Your task to perform on an android device: Search for seafood restaurants on Google Maps Image 0: 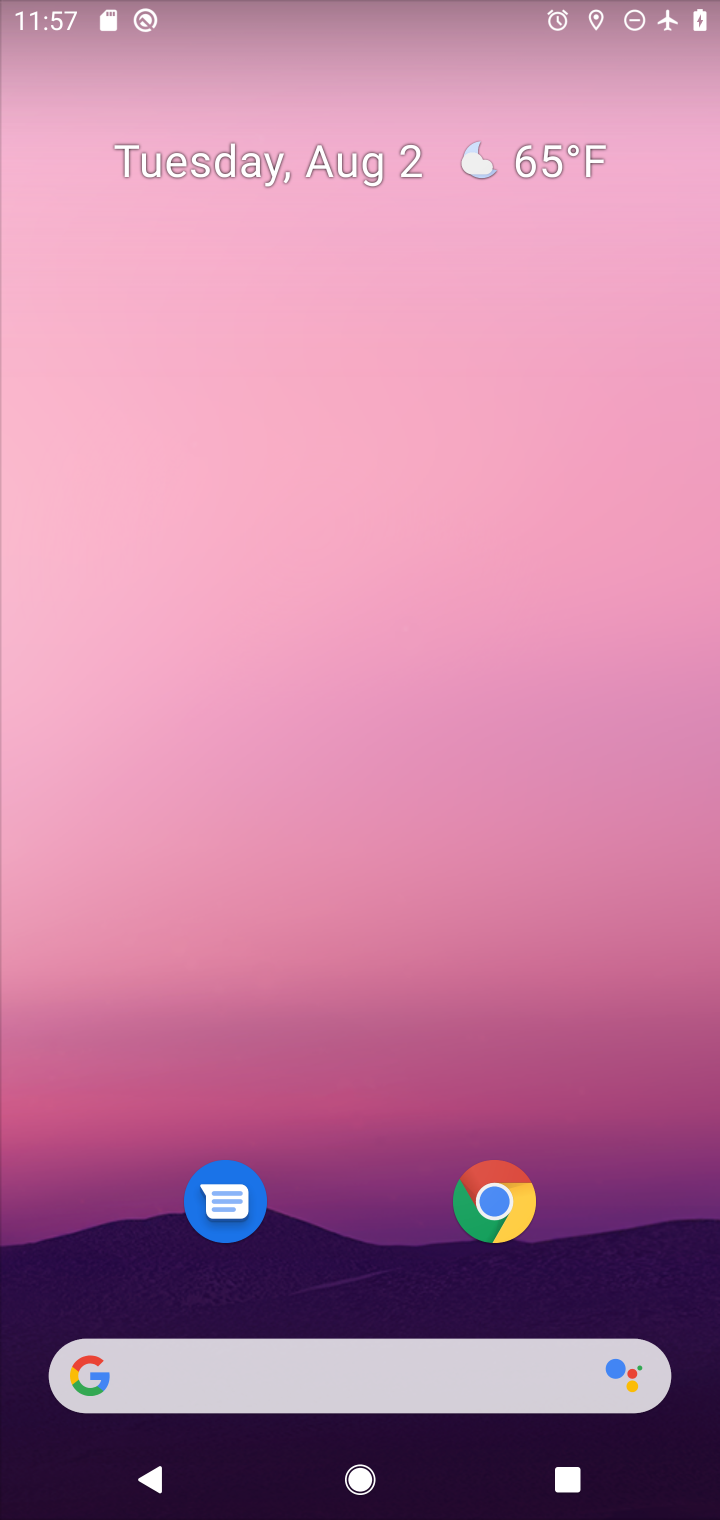
Step 0: press home button
Your task to perform on an android device: Search for seafood restaurants on Google Maps Image 1: 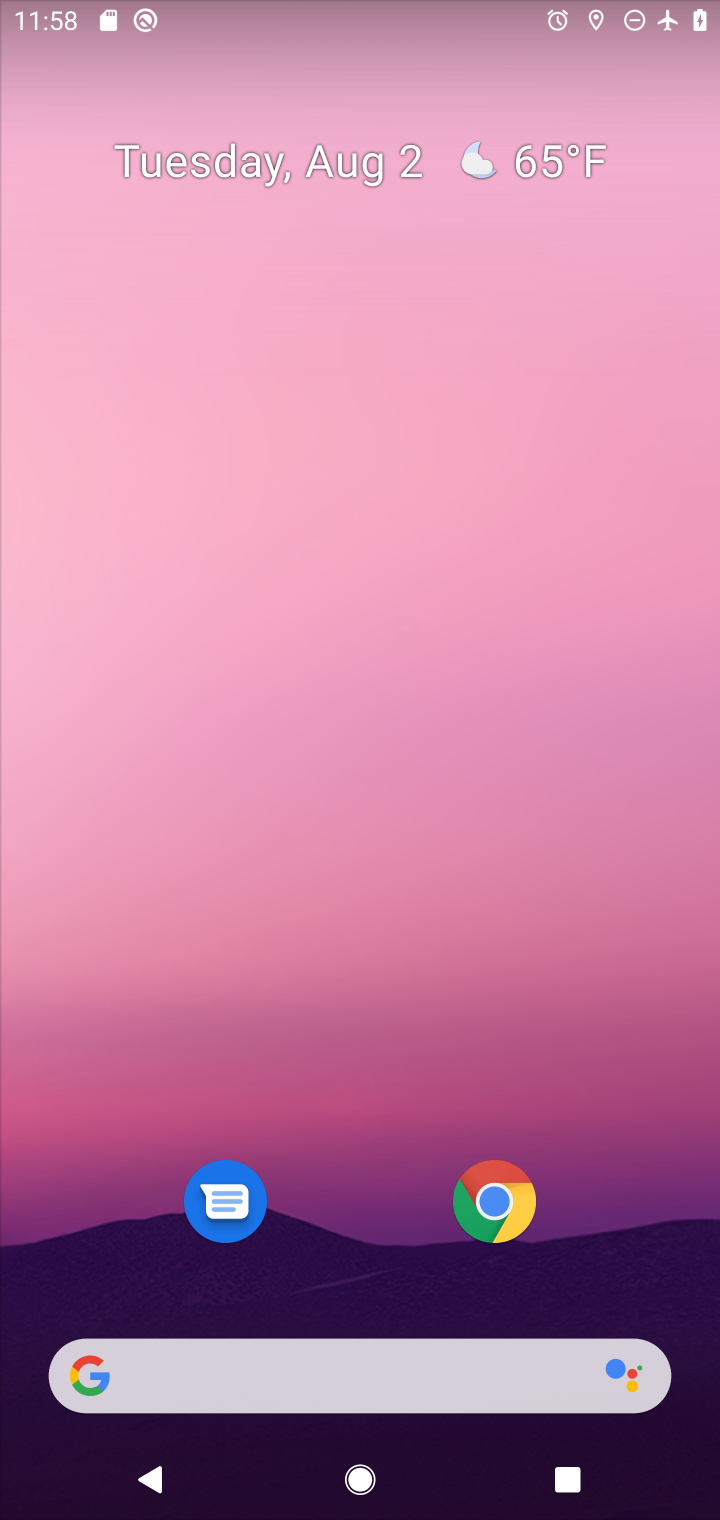
Step 1: drag from (356, 1285) to (700, 85)
Your task to perform on an android device: Search for seafood restaurants on Google Maps Image 2: 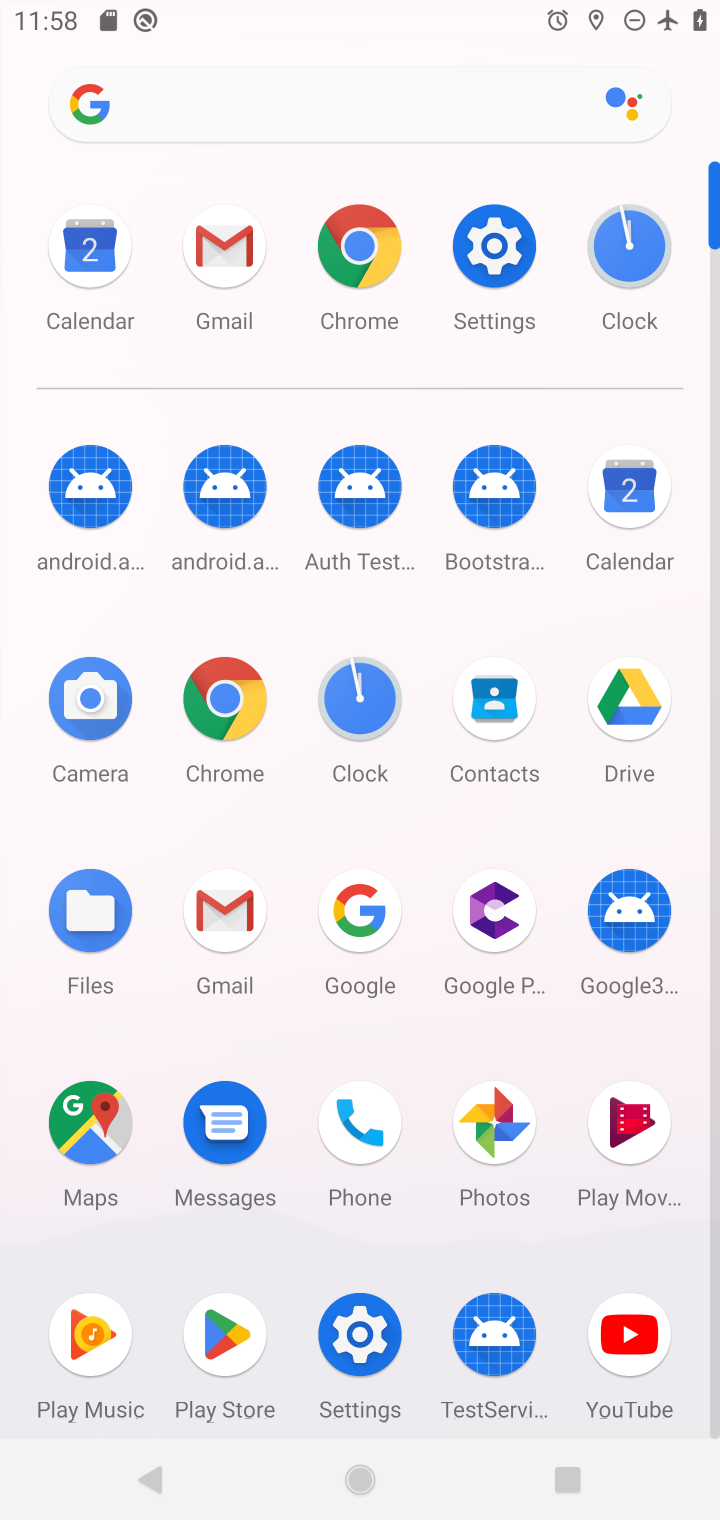
Step 2: click (88, 1146)
Your task to perform on an android device: Search for seafood restaurants on Google Maps Image 3: 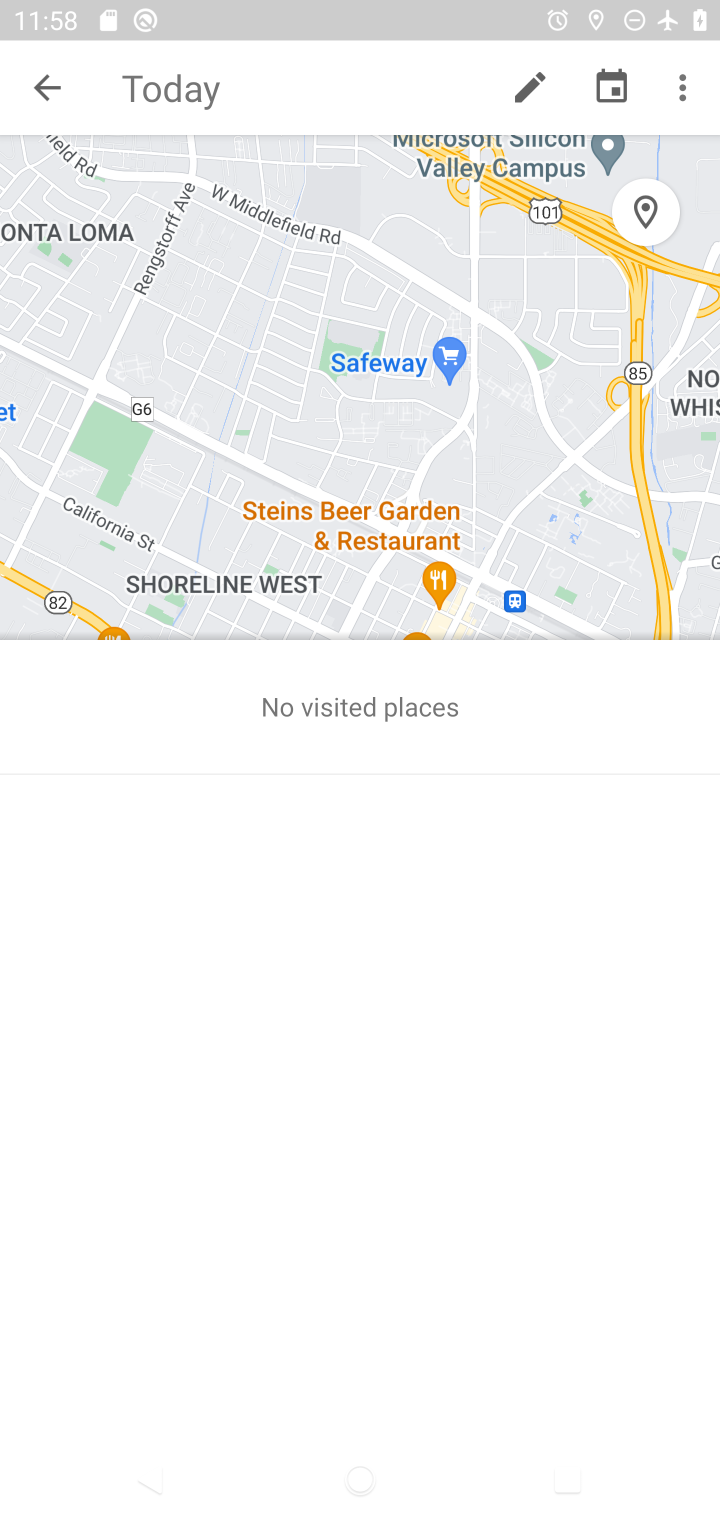
Step 3: click (32, 101)
Your task to perform on an android device: Search for seafood restaurants on Google Maps Image 4: 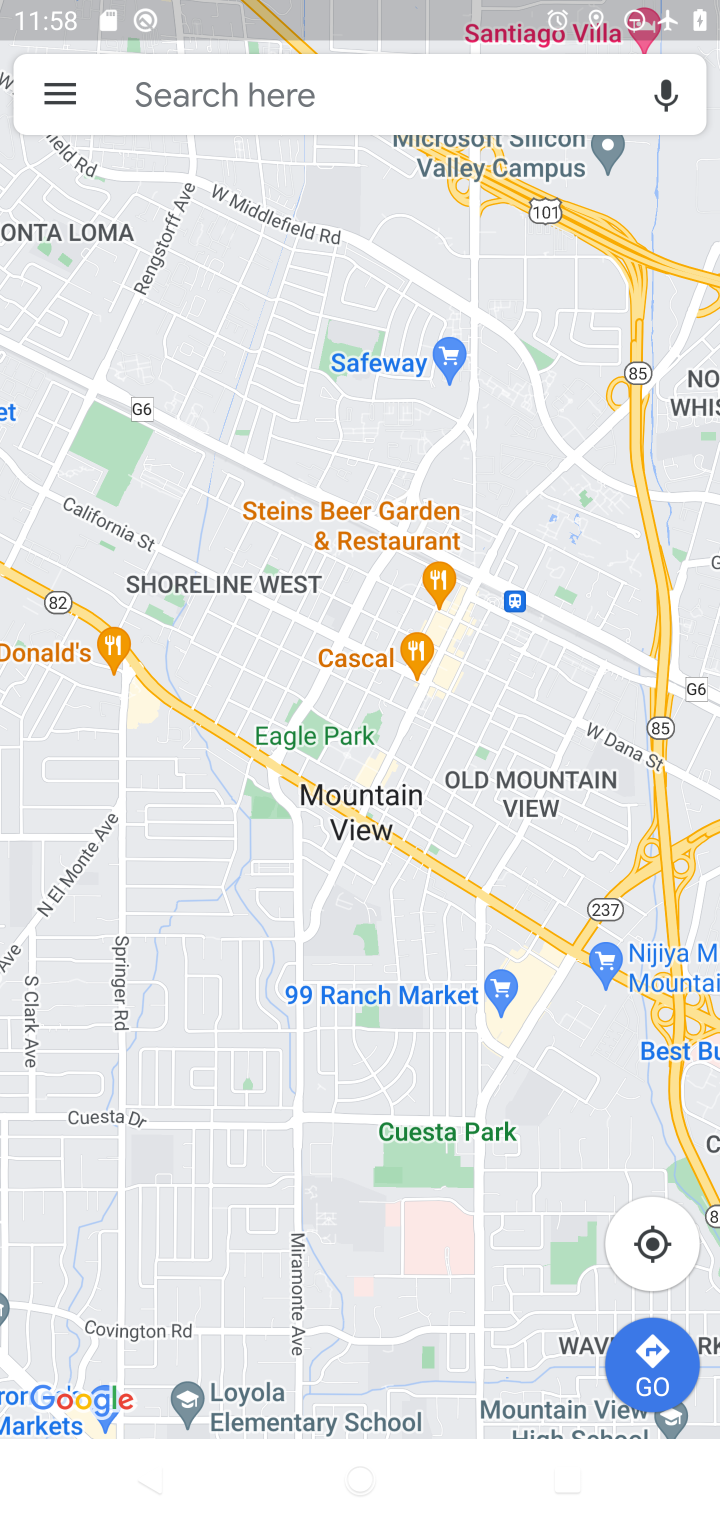
Step 4: click (223, 91)
Your task to perform on an android device: Search for seafood restaurants on Google Maps Image 5: 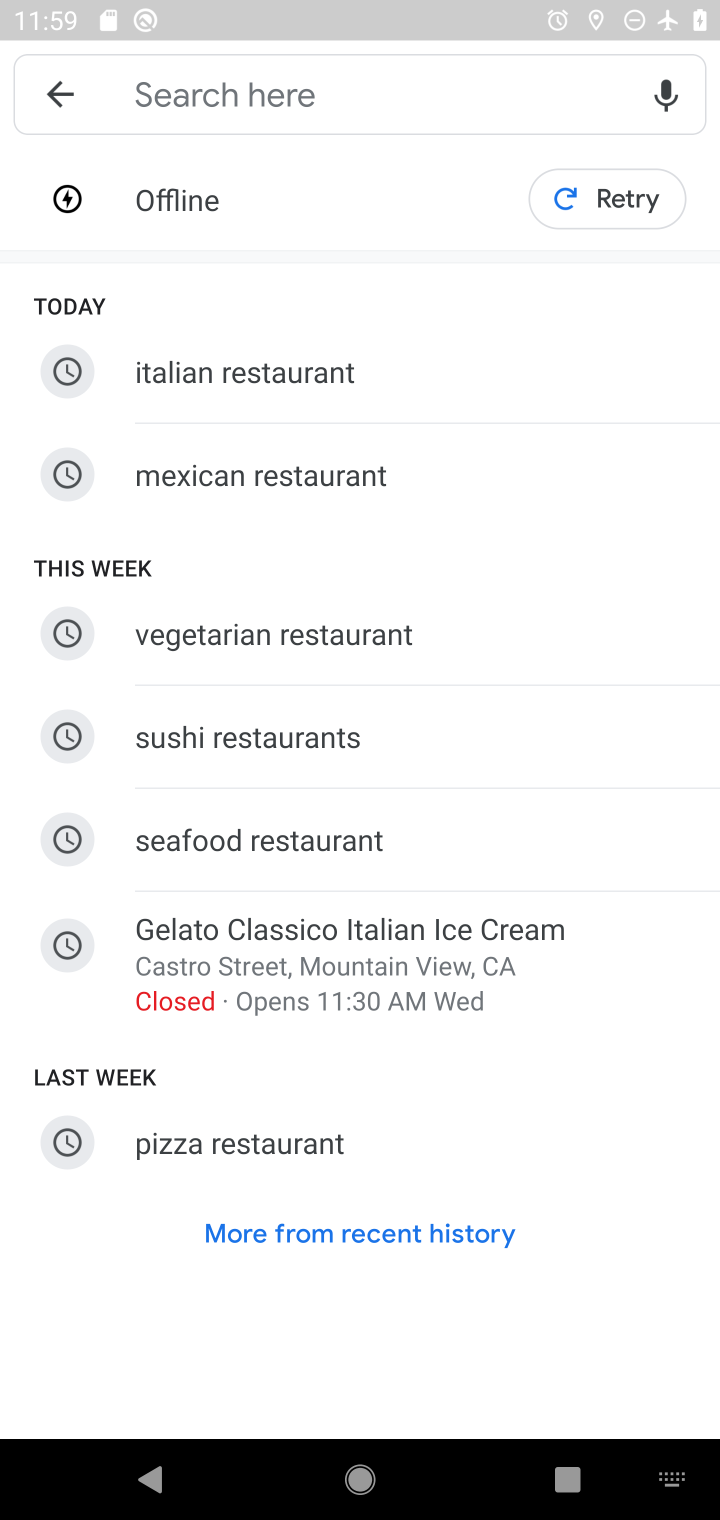
Step 5: click (282, 820)
Your task to perform on an android device: Search for seafood restaurants on Google Maps Image 6: 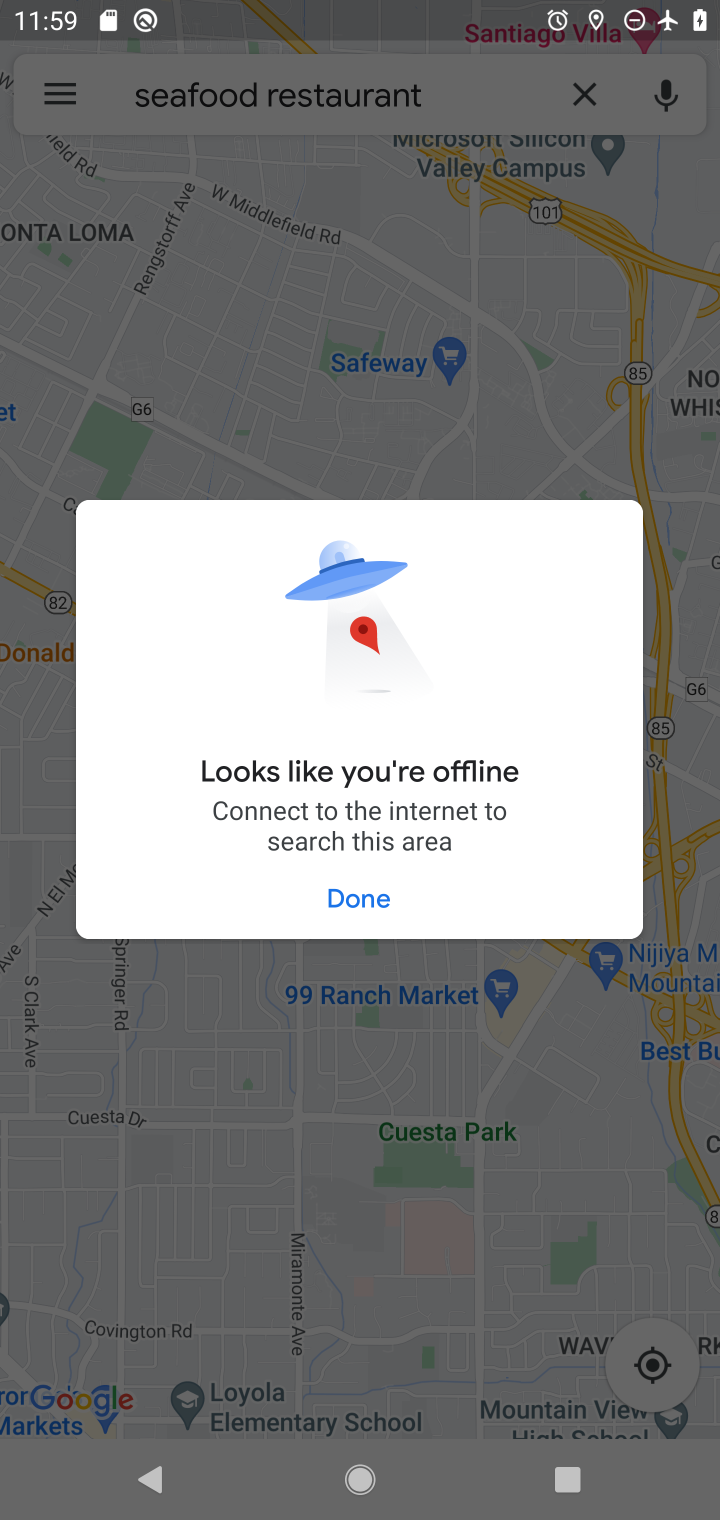
Step 6: task complete